Your task to perform on an android device: open a bookmark in the chrome app Image 0: 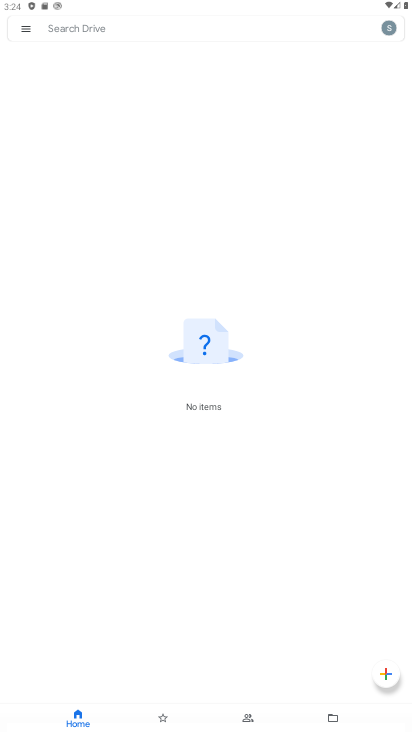
Step 0: press home button
Your task to perform on an android device: open a bookmark in the chrome app Image 1: 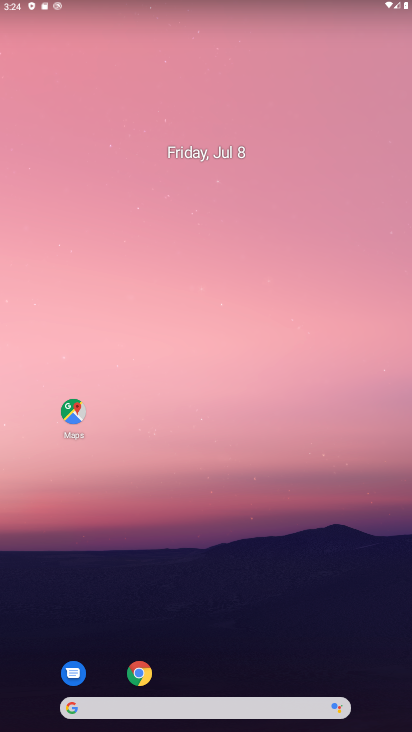
Step 1: click (142, 678)
Your task to perform on an android device: open a bookmark in the chrome app Image 2: 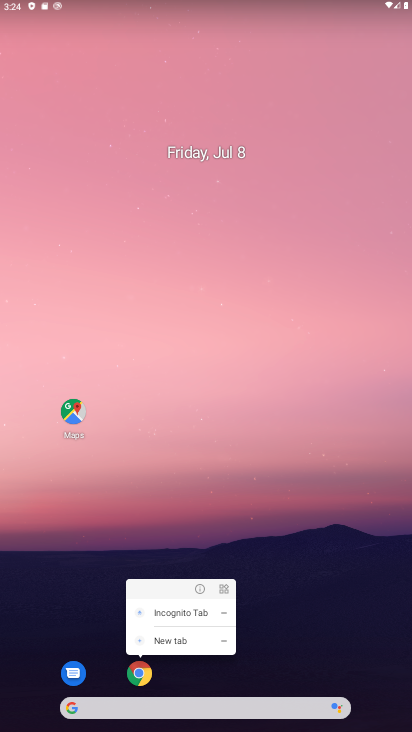
Step 2: click (142, 678)
Your task to perform on an android device: open a bookmark in the chrome app Image 3: 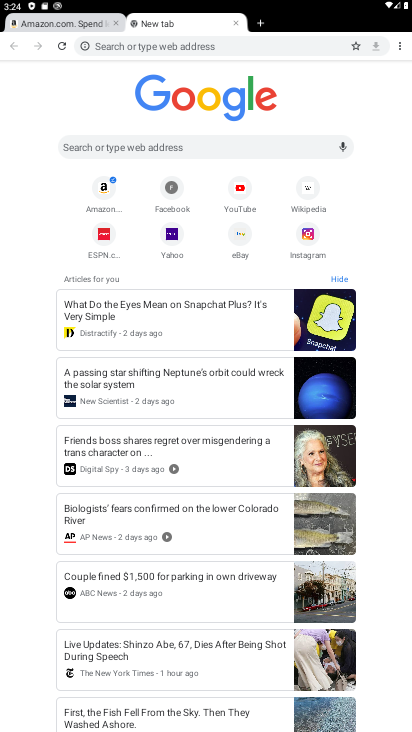
Step 3: drag from (398, 47) to (340, 93)
Your task to perform on an android device: open a bookmark in the chrome app Image 4: 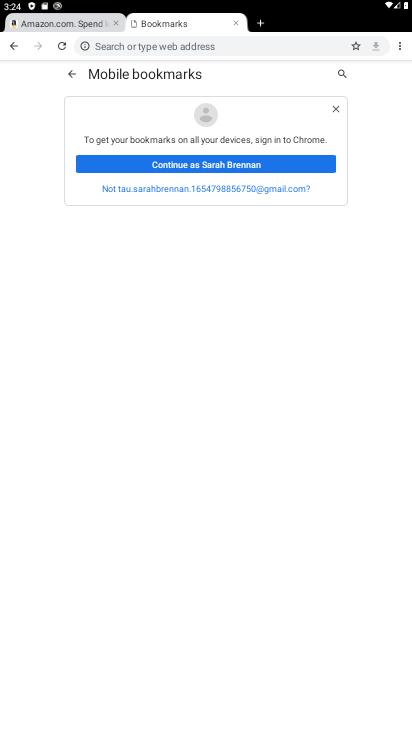
Step 4: click (212, 165)
Your task to perform on an android device: open a bookmark in the chrome app Image 5: 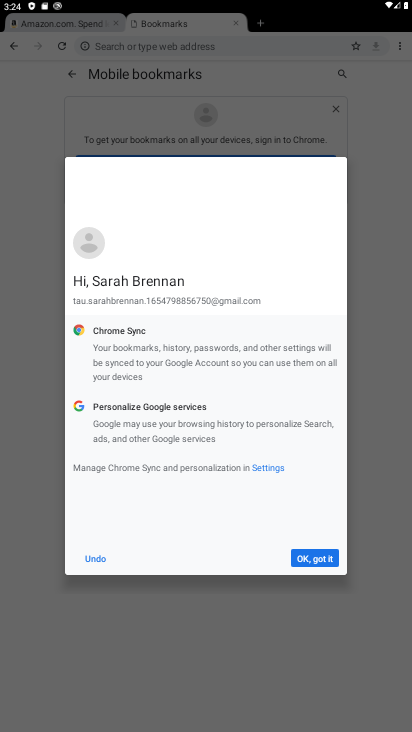
Step 5: click (312, 547)
Your task to perform on an android device: open a bookmark in the chrome app Image 6: 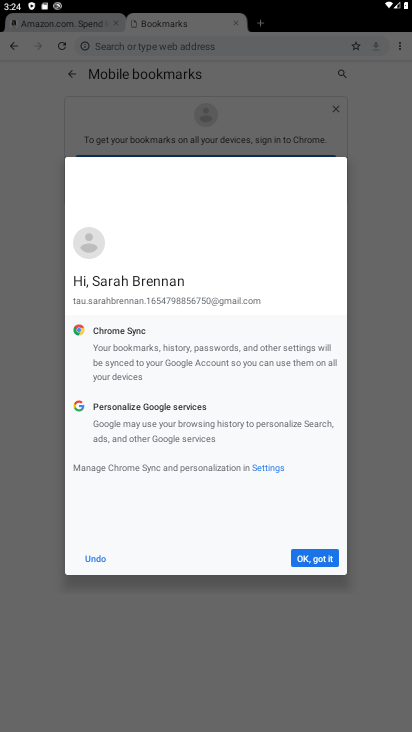
Step 6: click (314, 559)
Your task to perform on an android device: open a bookmark in the chrome app Image 7: 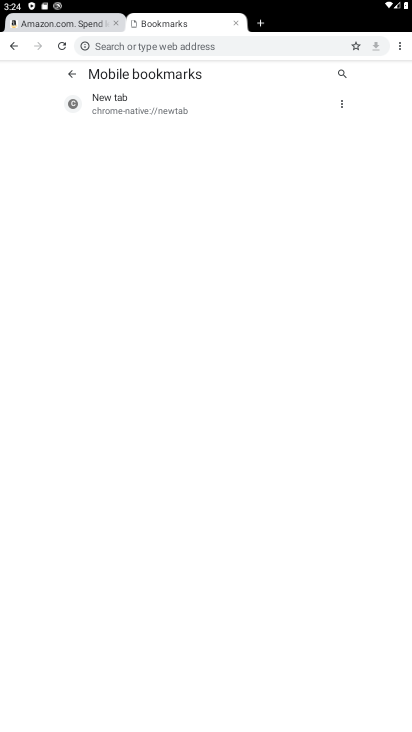
Step 7: click (120, 110)
Your task to perform on an android device: open a bookmark in the chrome app Image 8: 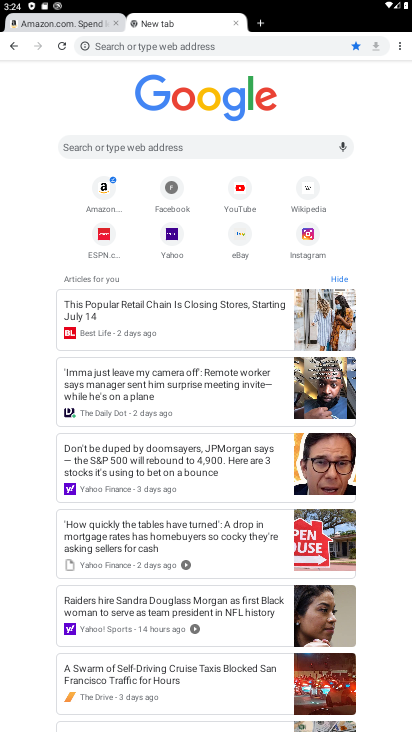
Step 8: drag from (399, 46) to (323, 97)
Your task to perform on an android device: open a bookmark in the chrome app Image 9: 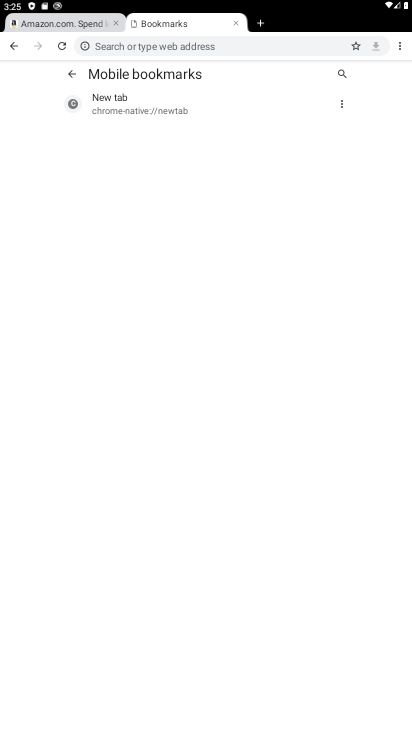
Step 9: click (146, 76)
Your task to perform on an android device: open a bookmark in the chrome app Image 10: 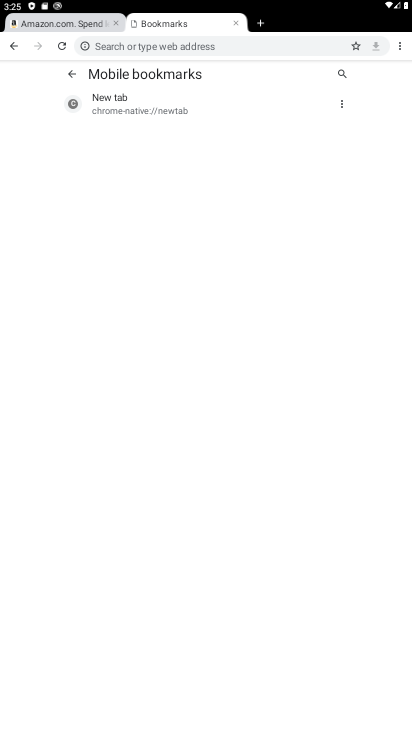
Step 10: task complete